Your task to perform on an android device: Go to Maps Image 0: 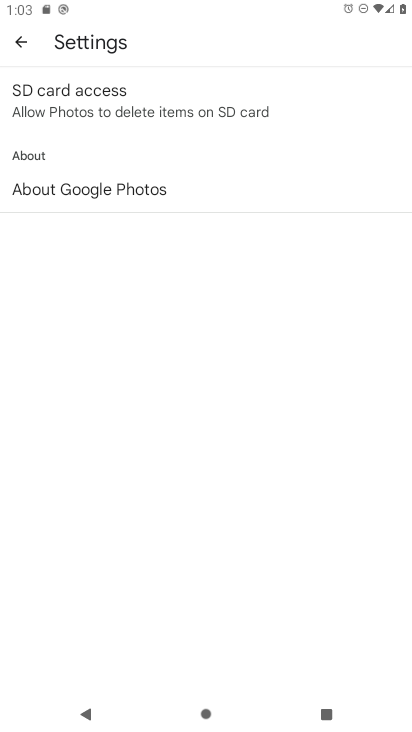
Step 0: press home button
Your task to perform on an android device: Go to Maps Image 1: 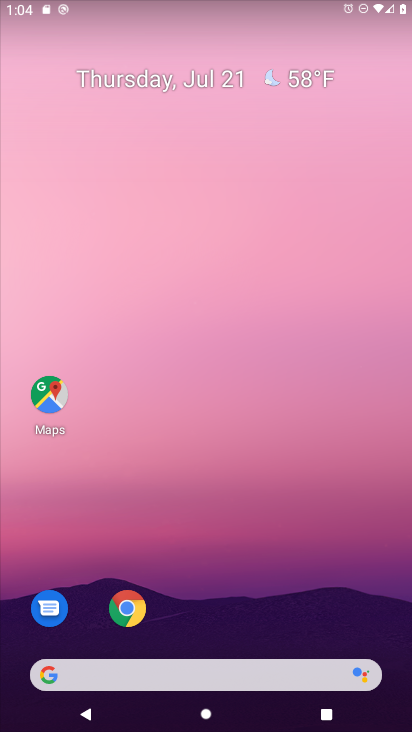
Step 1: drag from (257, 621) to (5, 100)
Your task to perform on an android device: Go to Maps Image 2: 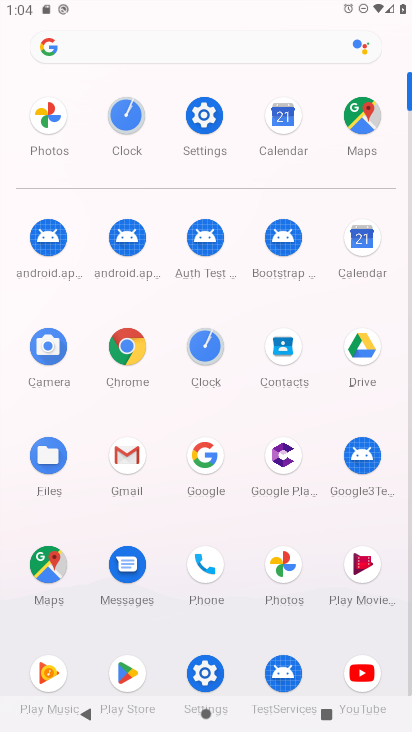
Step 2: click (51, 571)
Your task to perform on an android device: Go to Maps Image 3: 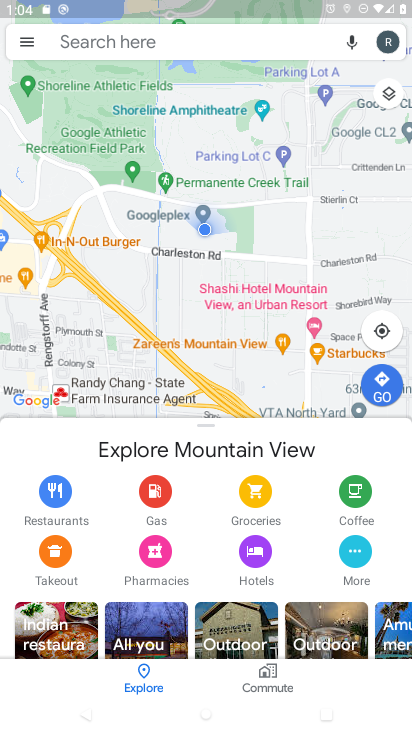
Step 3: task complete